Your task to perform on an android device: Check the news Image 0: 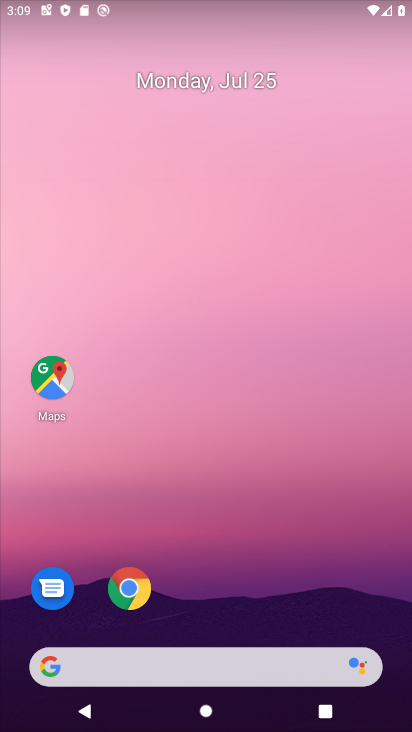
Step 0: drag from (211, 604) to (177, 169)
Your task to perform on an android device: Check the news Image 1: 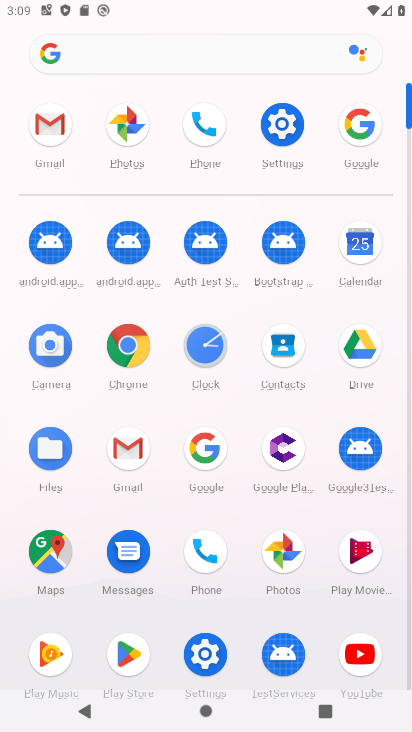
Step 1: click (355, 151)
Your task to perform on an android device: Check the news Image 2: 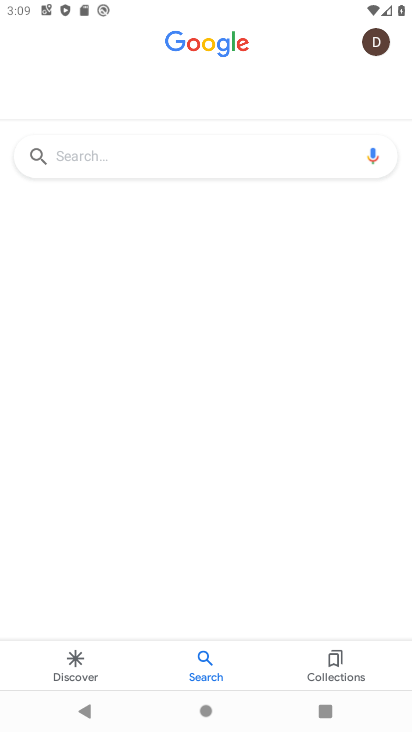
Step 2: click (184, 163)
Your task to perform on an android device: Check the news Image 3: 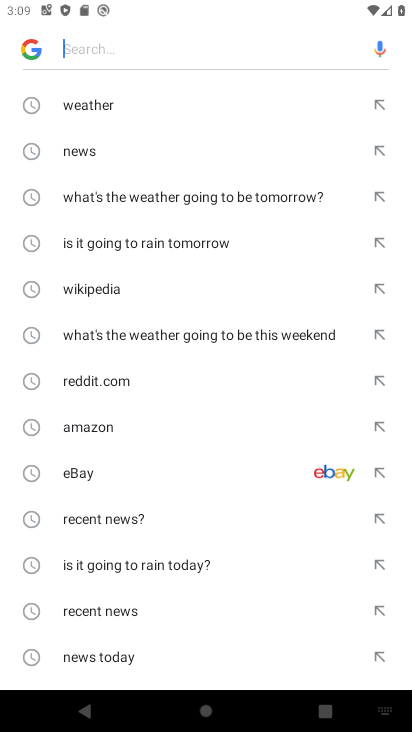
Step 3: click (93, 161)
Your task to perform on an android device: Check the news Image 4: 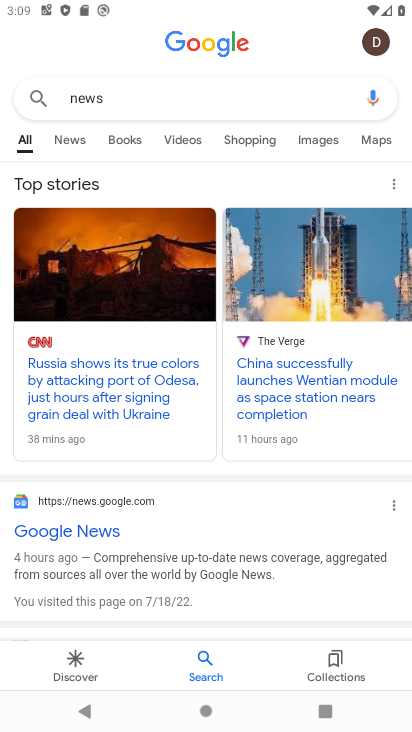
Step 4: click (64, 139)
Your task to perform on an android device: Check the news Image 5: 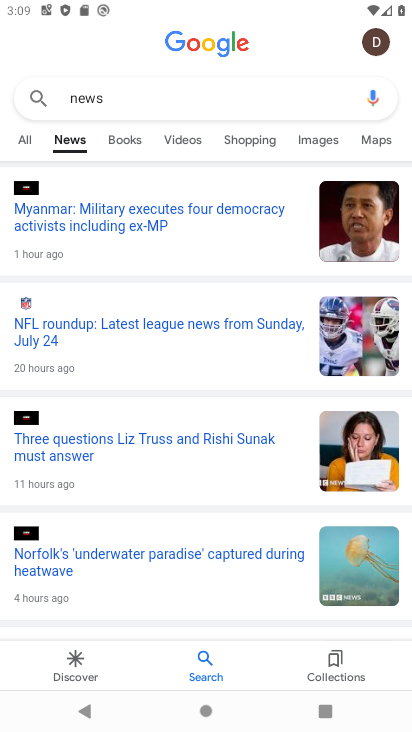
Step 5: task complete